Your task to perform on an android device: change your default location settings in chrome Image 0: 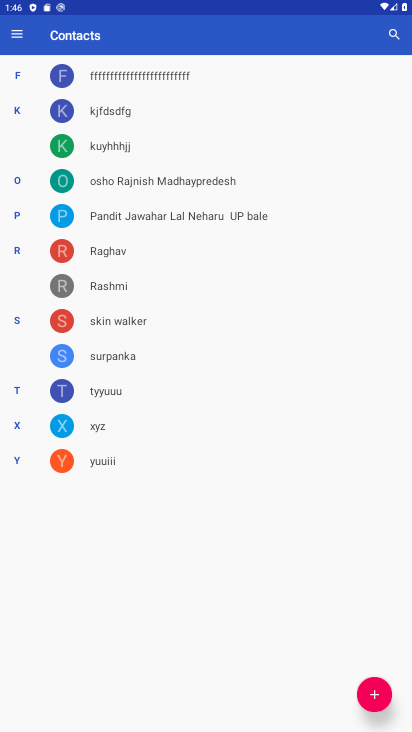
Step 0: press home button
Your task to perform on an android device: change your default location settings in chrome Image 1: 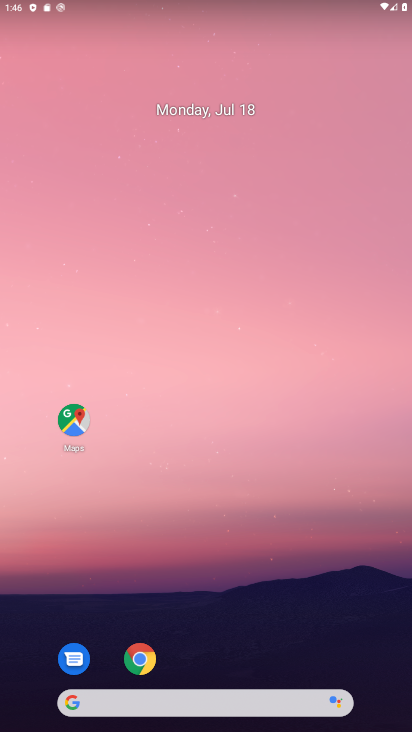
Step 1: click (142, 660)
Your task to perform on an android device: change your default location settings in chrome Image 2: 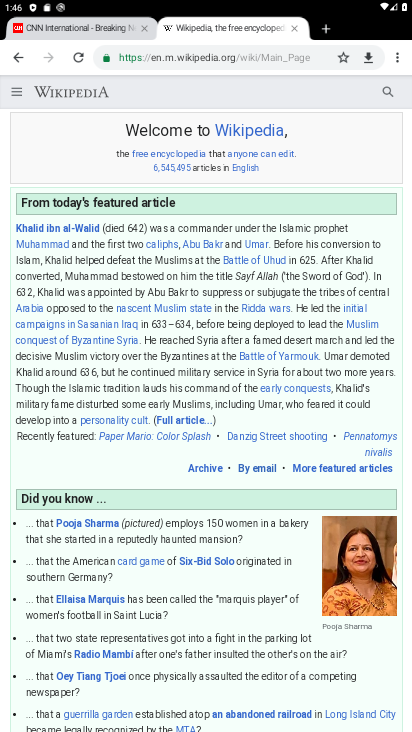
Step 2: click (400, 60)
Your task to perform on an android device: change your default location settings in chrome Image 3: 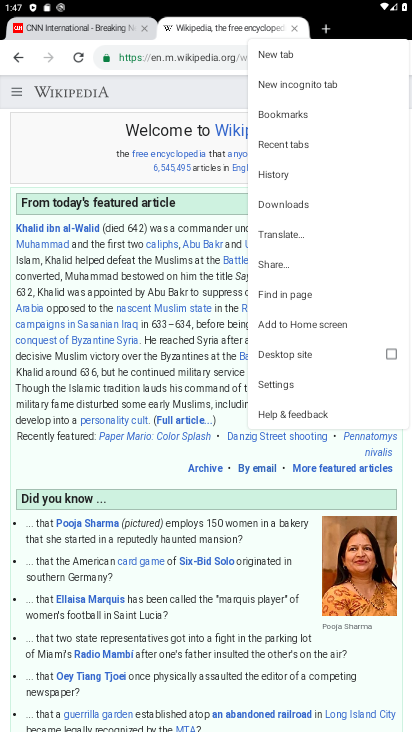
Step 3: click (298, 379)
Your task to perform on an android device: change your default location settings in chrome Image 4: 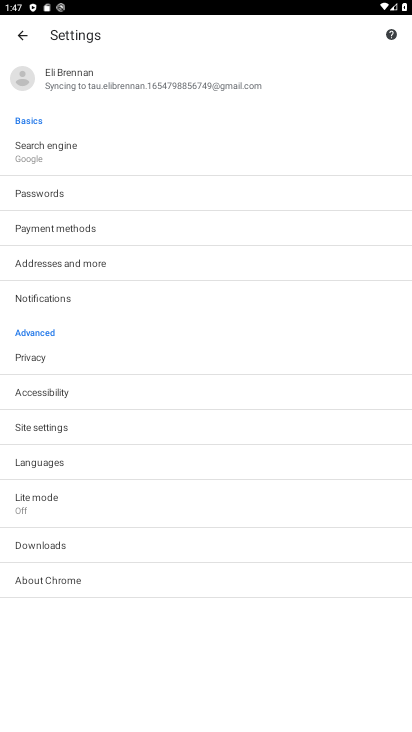
Step 4: click (132, 154)
Your task to perform on an android device: change your default location settings in chrome Image 5: 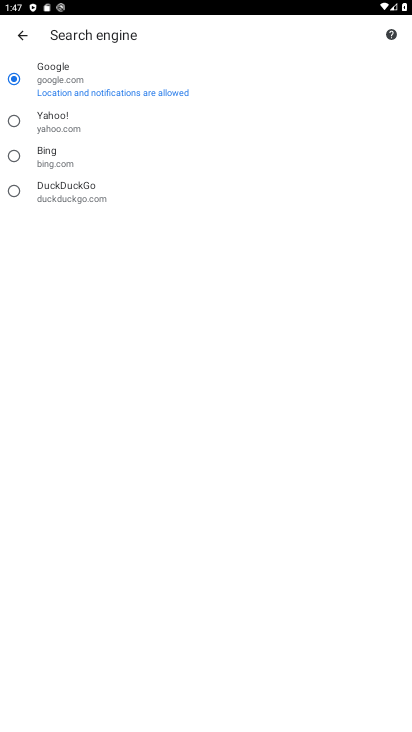
Step 5: click (93, 120)
Your task to perform on an android device: change your default location settings in chrome Image 6: 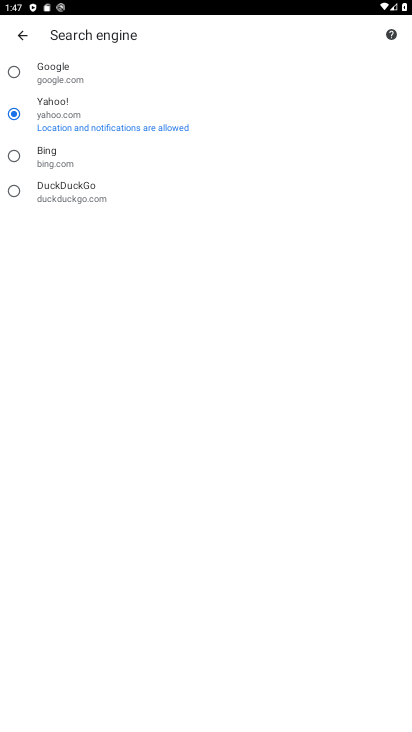
Step 6: task complete